Your task to perform on an android device: change the upload size in google photos Image 0: 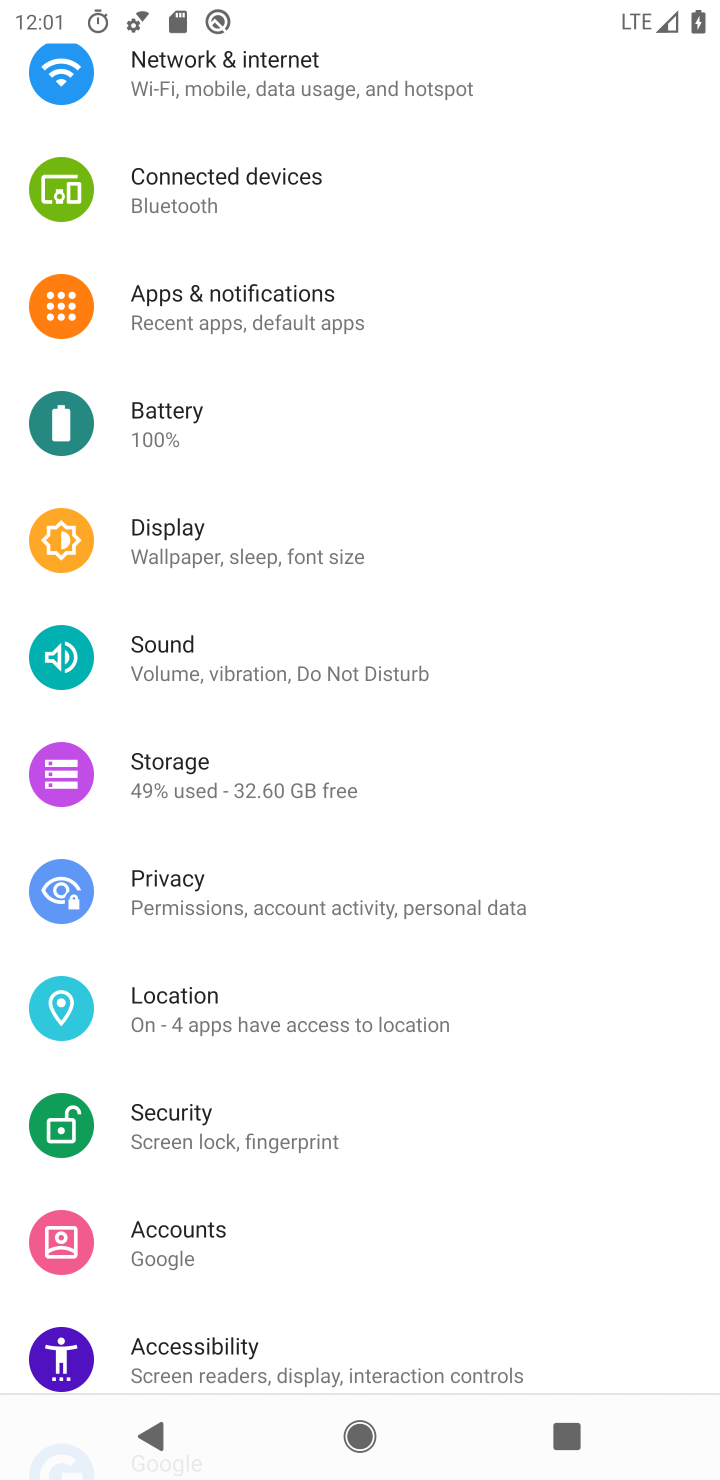
Step 0: press home button
Your task to perform on an android device: change the upload size in google photos Image 1: 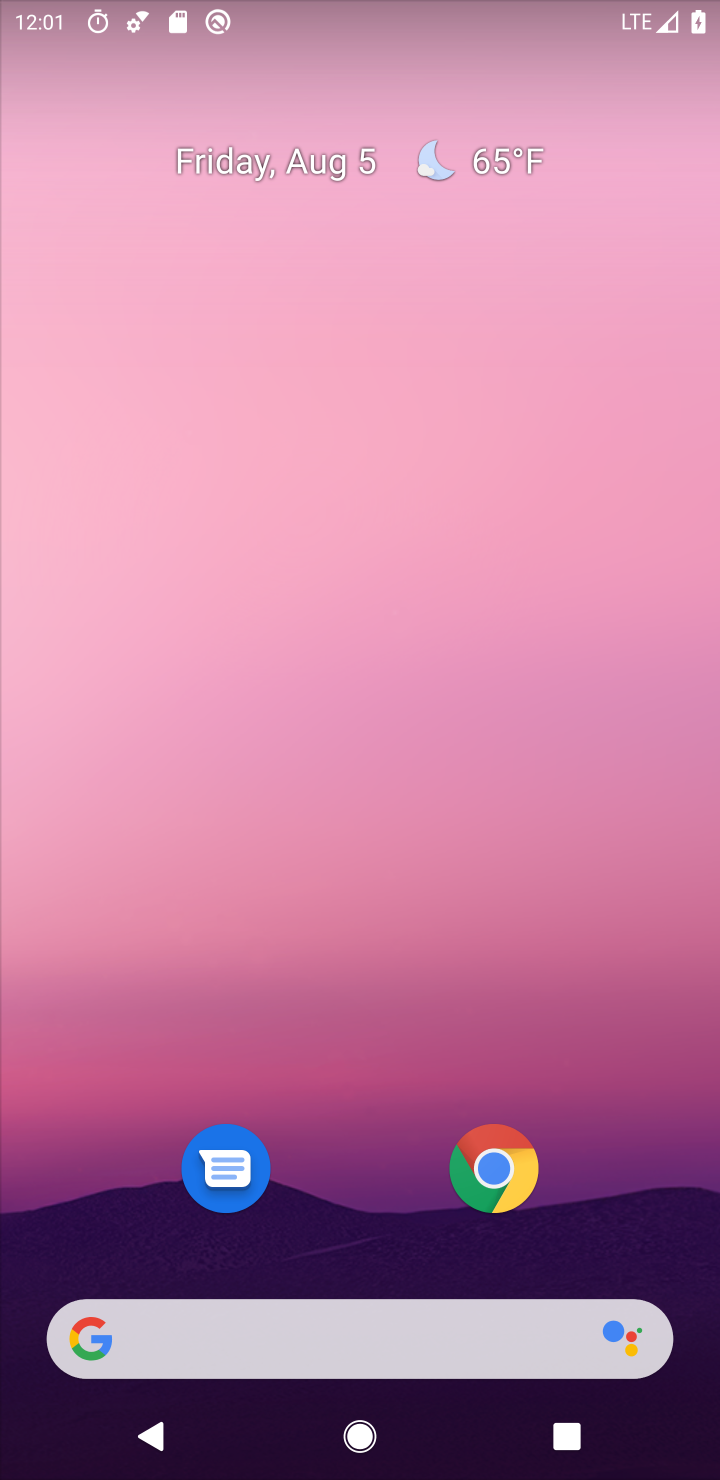
Step 1: drag from (329, 1152) to (499, 0)
Your task to perform on an android device: change the upload size in google photos Image 2: 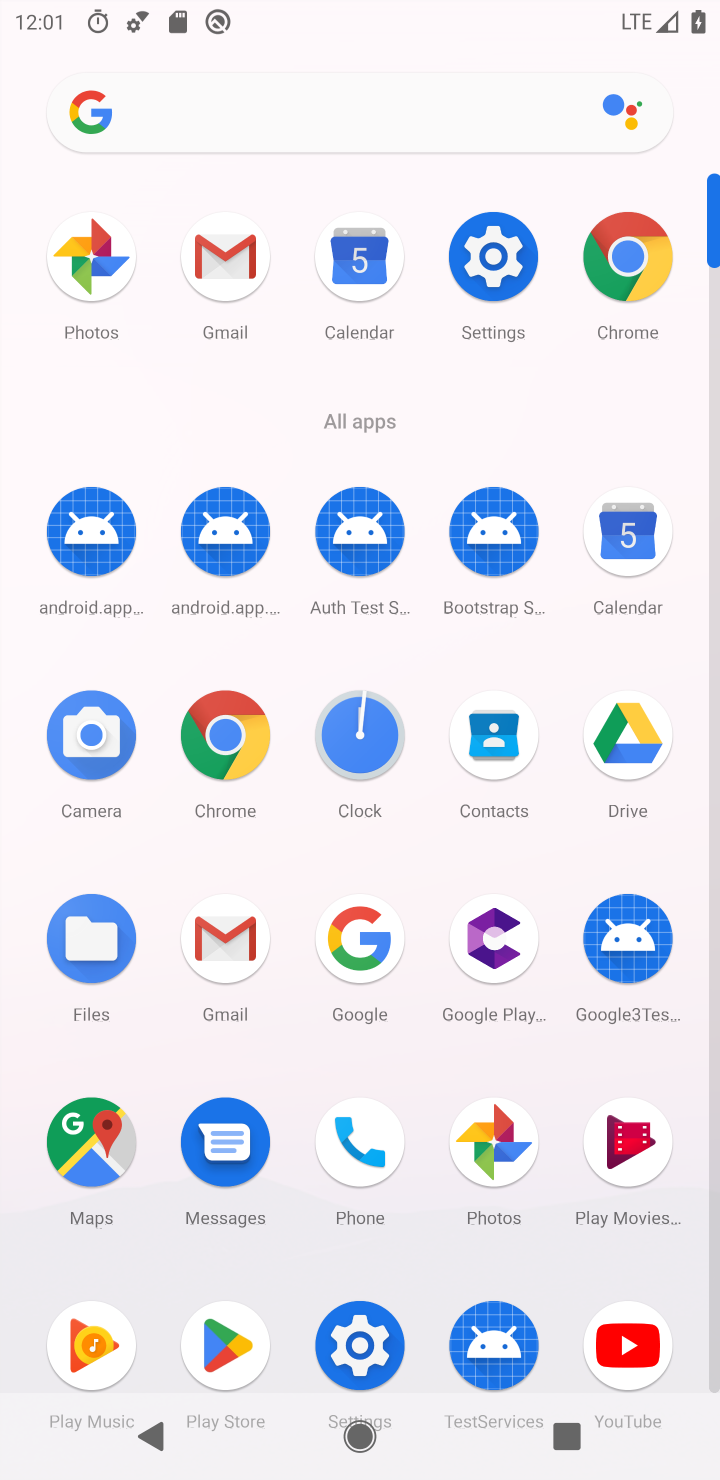
Step 2: click (505, 1190)
Your task to perform on an android device: change the upload size in google photos Image 3: 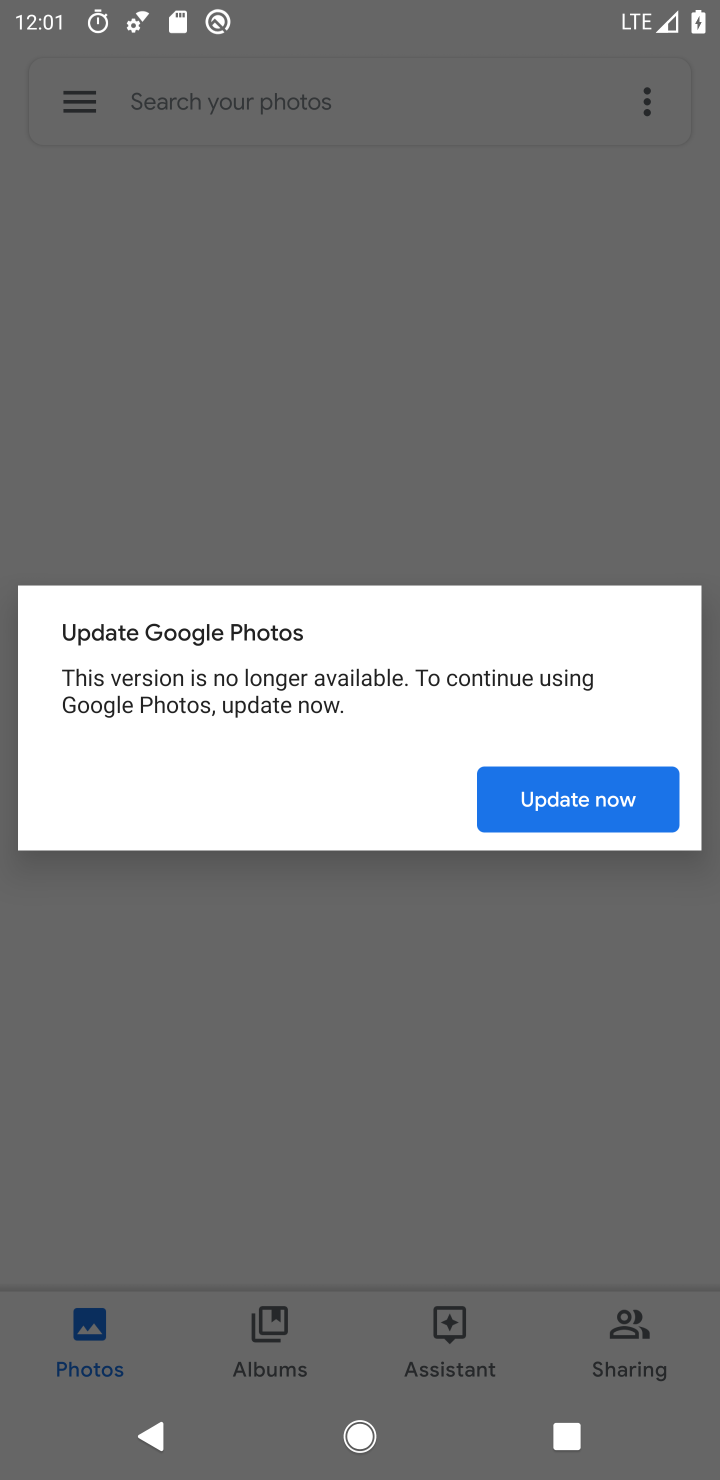
Step 3: click (587, 804)
Your task to perform on an android device: change the upload size in google photos Image 4: 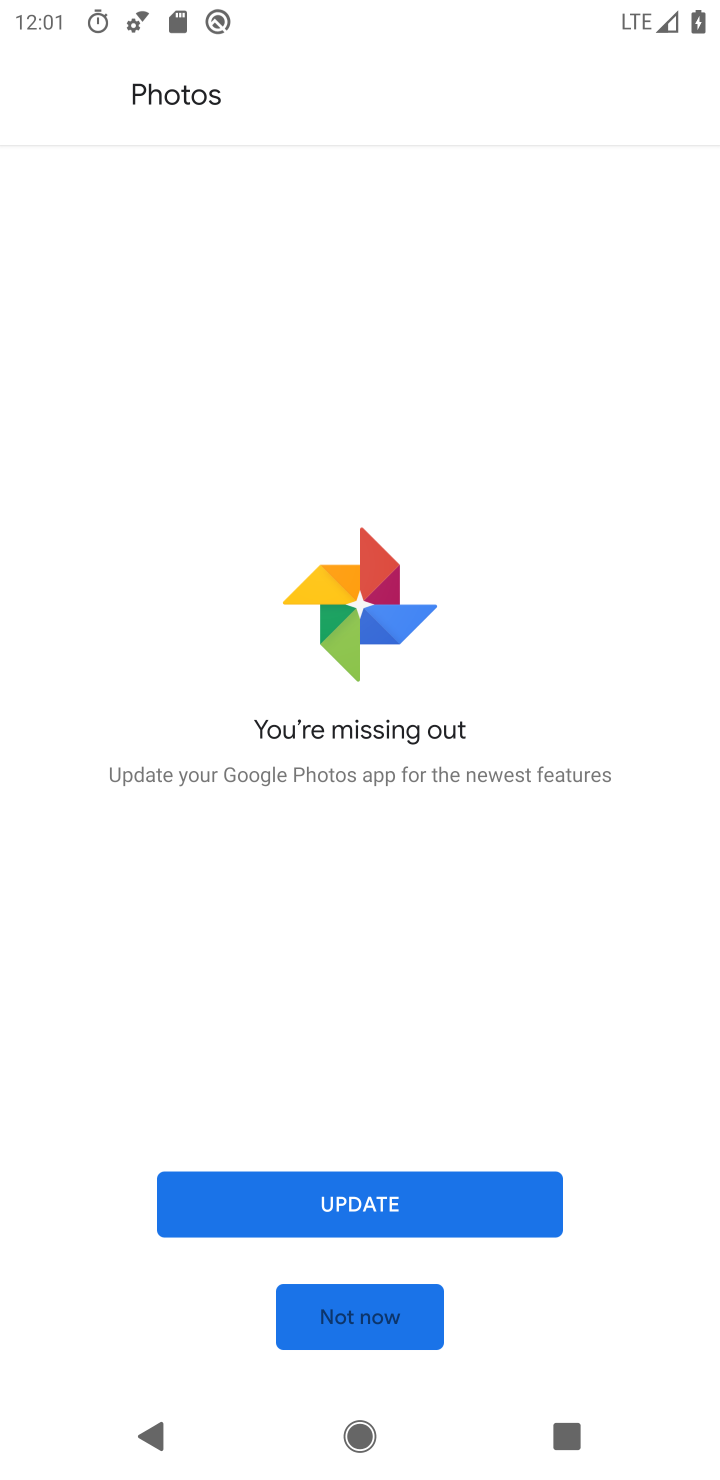
Step 4: click (394, 1319)
Your task to perform on an android device: change the upload size in google photos Image 5: 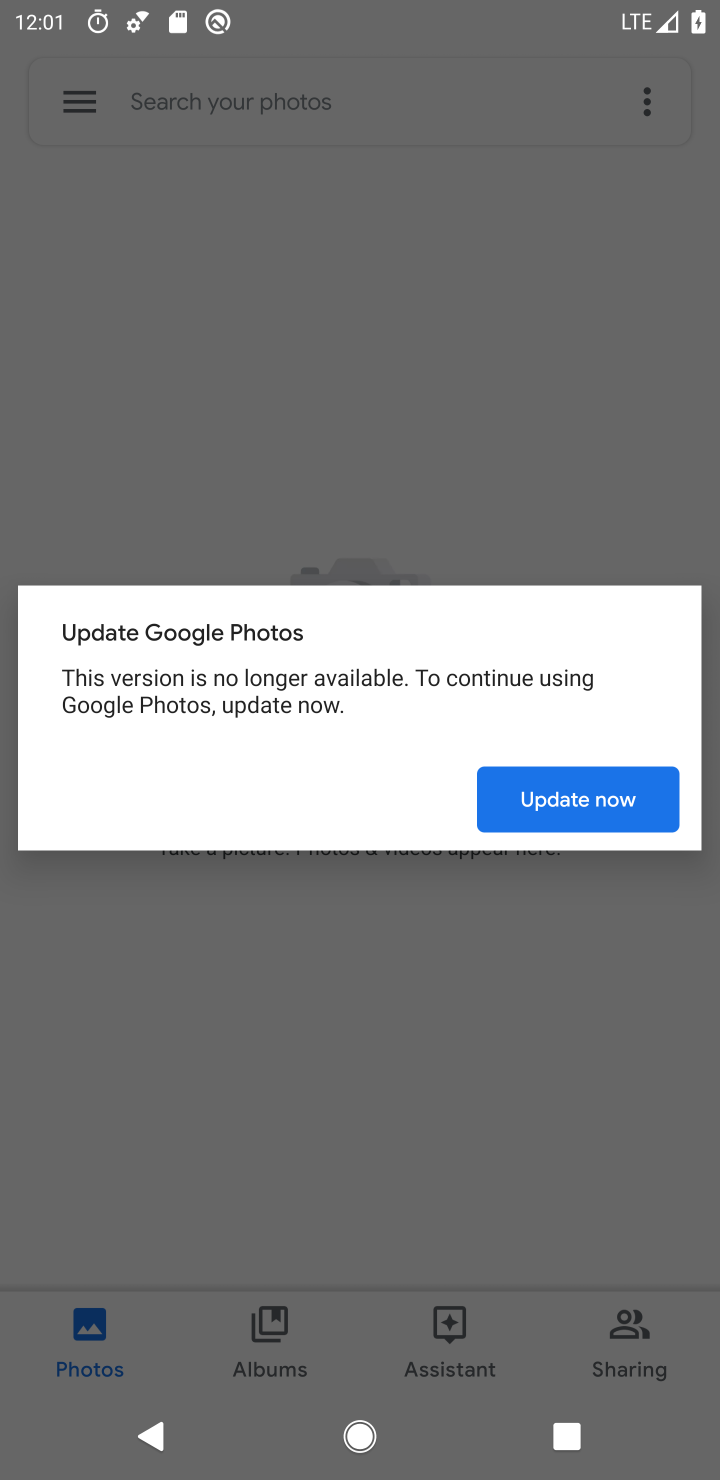
Step 5: click (601, 809)
Your task to perform on an android device: change the upload size in google photos Image 6: 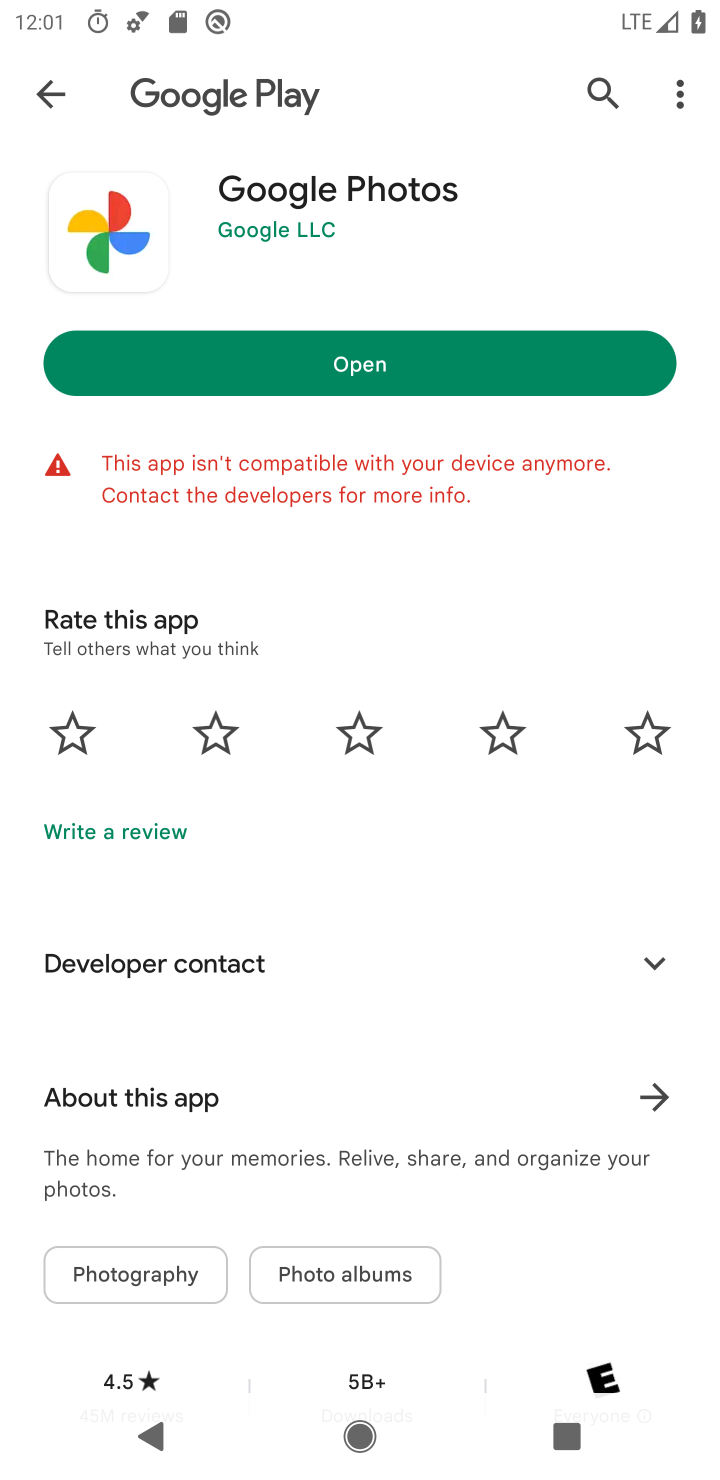
Step 6: click (409, 368)
Your task to perform on an android device: change the upload size in google photos Image 7: 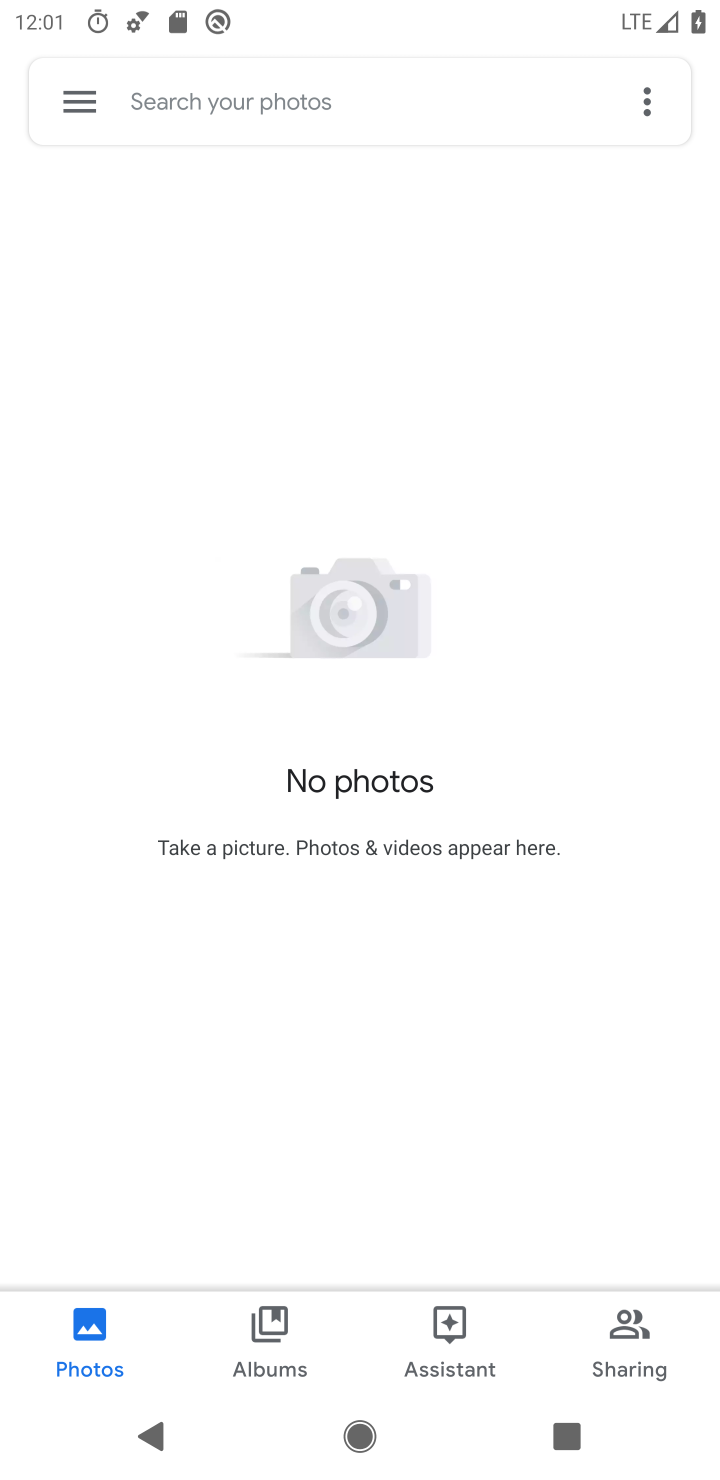
Step 7: click (70, 93)
Your task to perform on an android device: change the upload size in google photos Image 8: 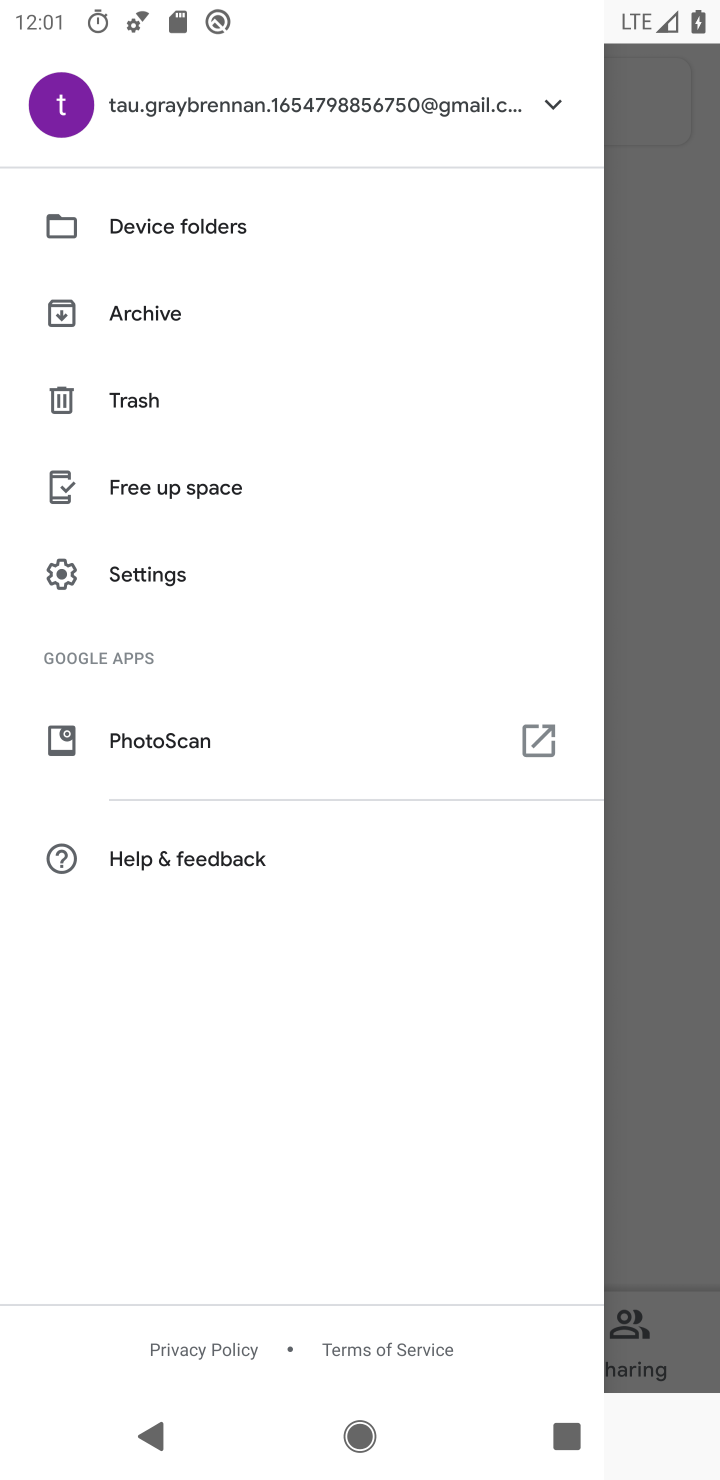
Step 8: click (153, 565)
Your task to perform on an android device: change the upload size in google photos Image 9: 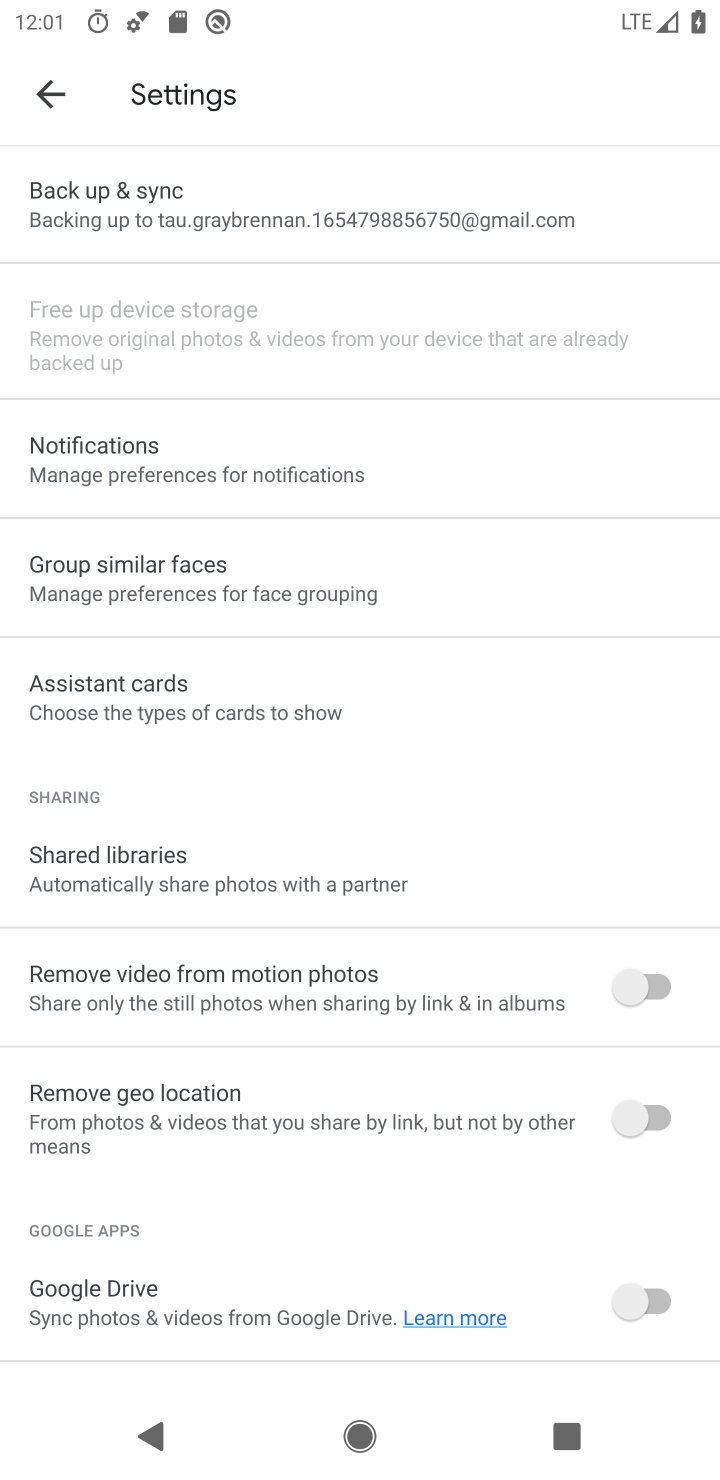
Step 9: click (188, 194)
Your task to perform on an android device: change the upload size in google photos Image 10: 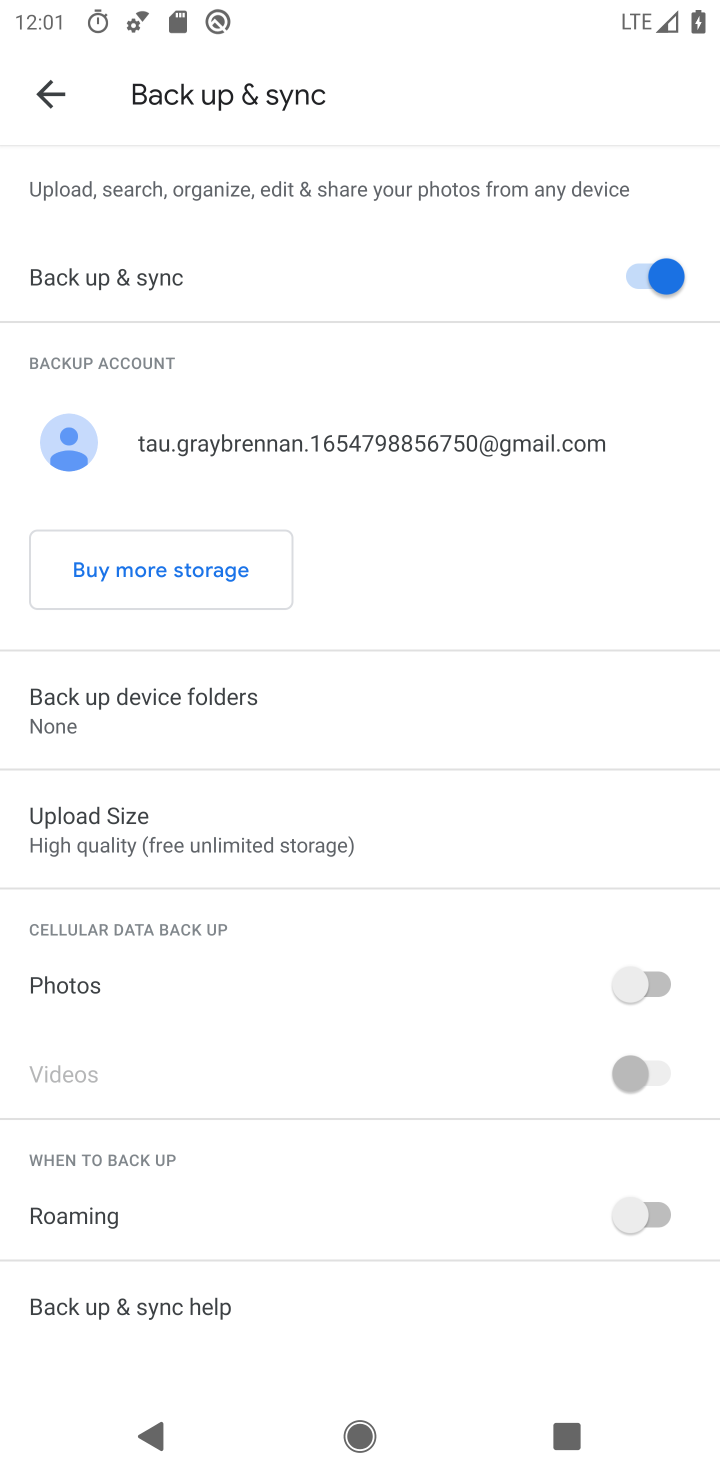
Step 10: click (226, 841)
Your task to perform on an android device: change the upload size in google photos Image 11: 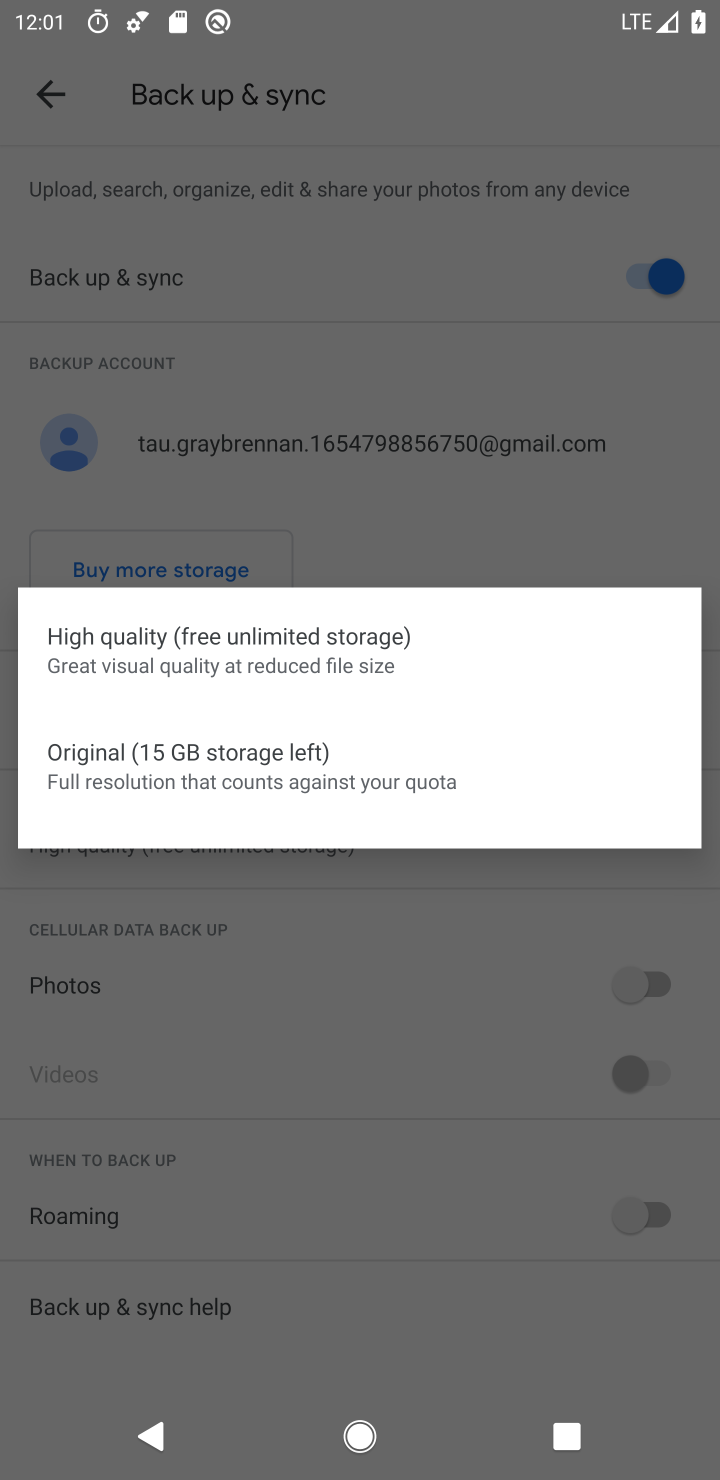
Step 11: click (190, 757)
Your task to perform on an android device: change the upload size in google photos Image 12: 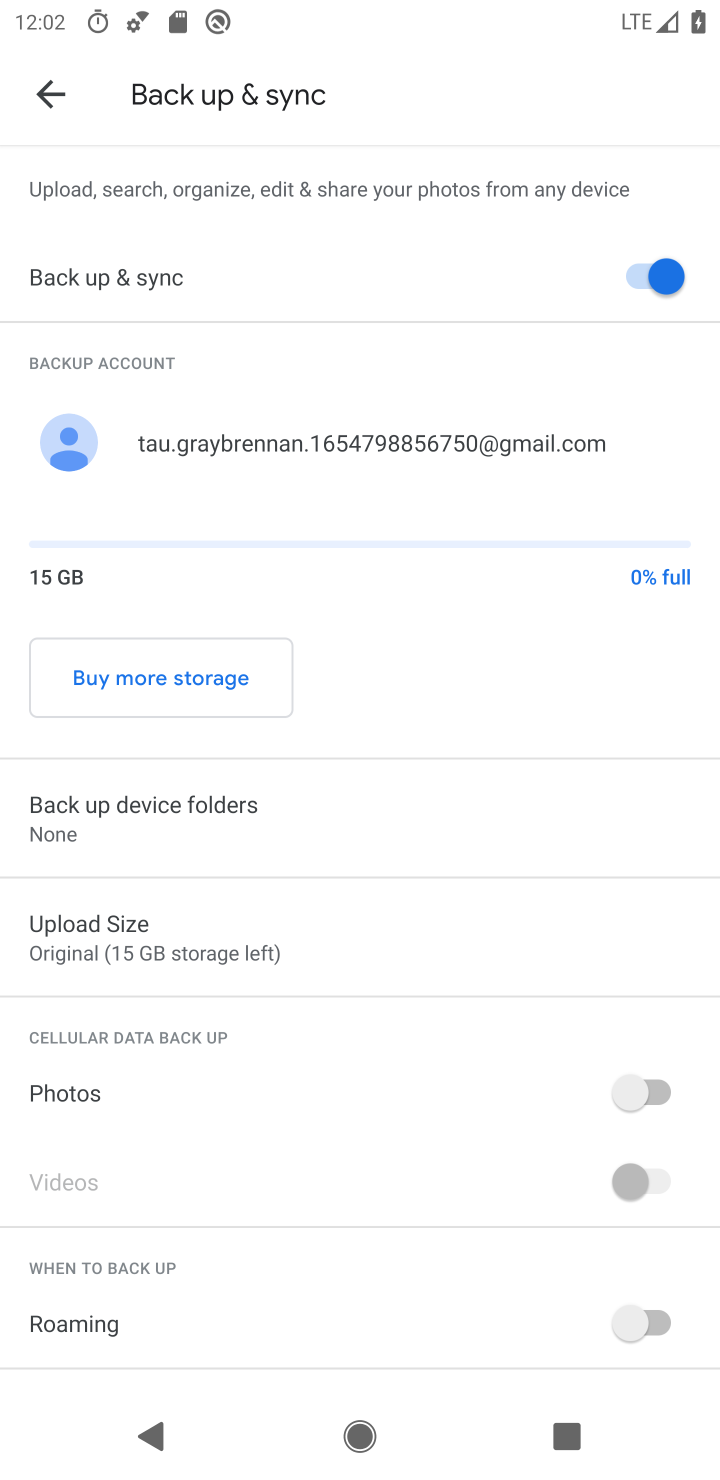
Step 12: task complete